Your task to perform on an android device: Add bose soundsport free to the cart on walmart.com, then select checkout. Image 0: 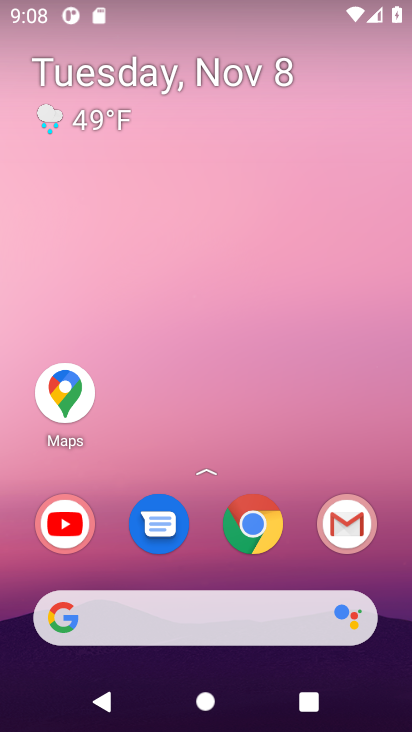
Step 0: click (255, 531)
Your task to perform on an android device: Add bose soundsport free to the cart on walmart.com, then select checkout. Image 1: 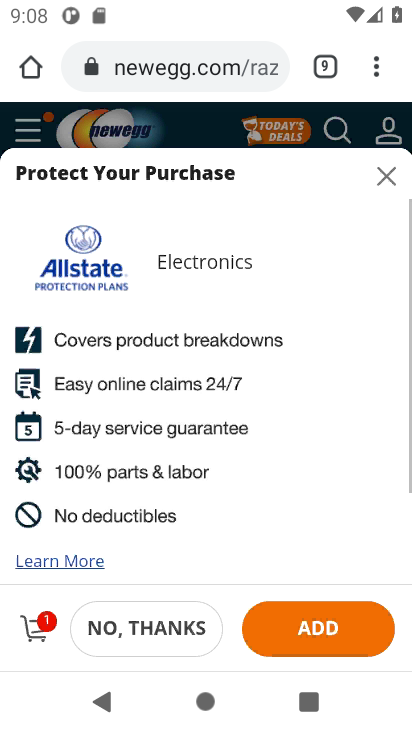
Step 1: click (155, 64)
Your task to perform on an android device: Add bose soundsport free to the cart on walmart.com, then select checkout. Image 2: 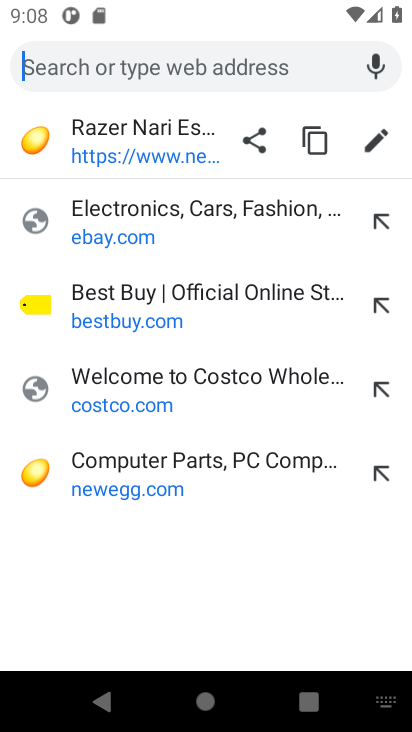
Step 2: type "walmart.com"
Your task to perform on an android device: Add bose soundsport free to the cart on walmart.com, then select checkout. Image 3: 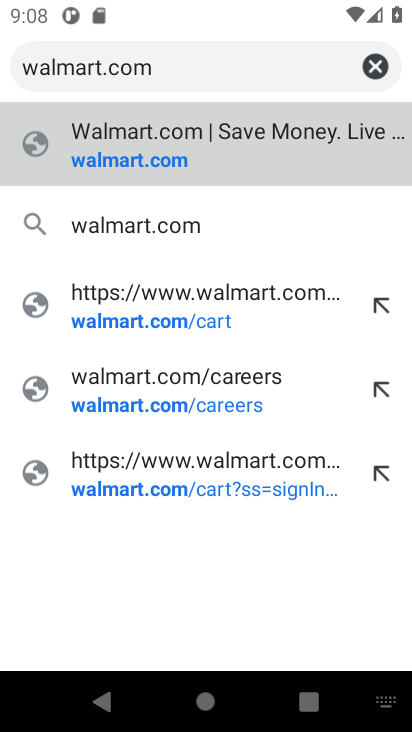
Step 3: click (121, 163)
Your task to perform on an android device: Add bose soundsport free to the cart on walmart.com, then select checkout. Image 4: 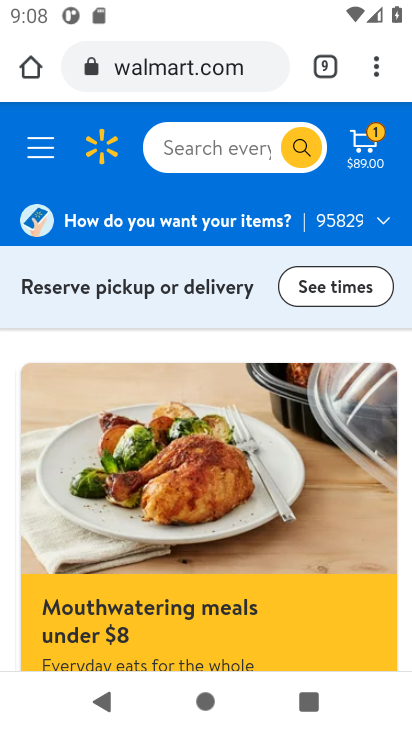
Step 4: click (187, 161)
Your task to perform on an android device: Add bose soundsport free to the cart on walmart.com, then select checkout. Image 5: 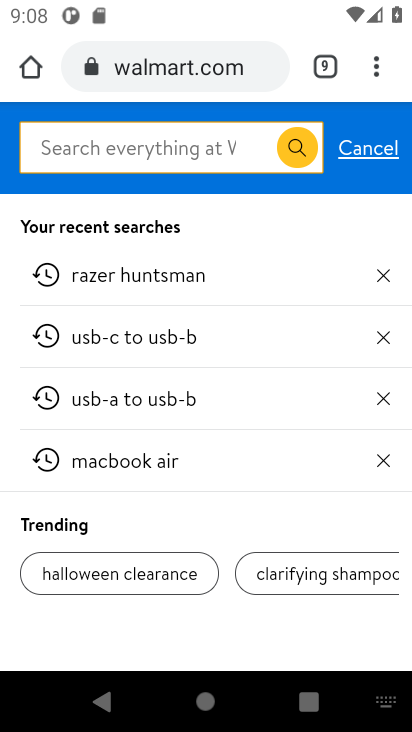
Step 5: type "bose soundsport free"
Your task to perform on an android device: Add bose soundsport free to the cart on walmart.com, then select checkout. Image 6: 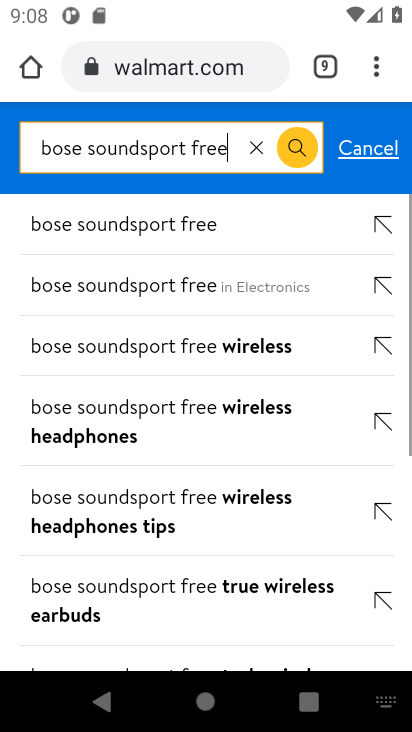
Step 6: click (158, 222)
Your task to perform on an android device: Add bose soundsport free to the cart on walmart.com, then select checkout. Image 7: 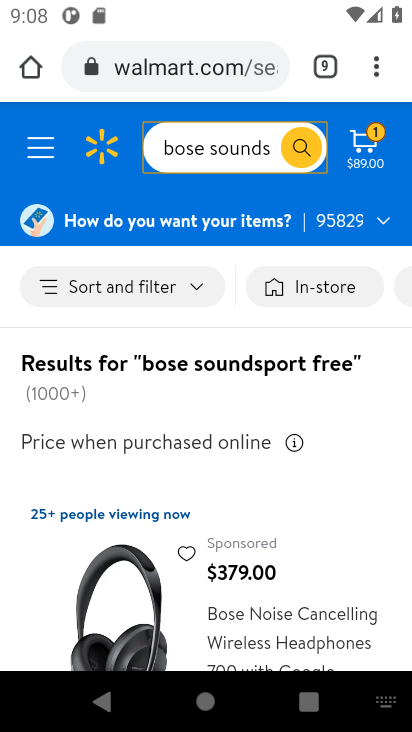
Step 7: task complete